Your task to perform on an android device: Show me productivity apps on the Play Store Image 0: 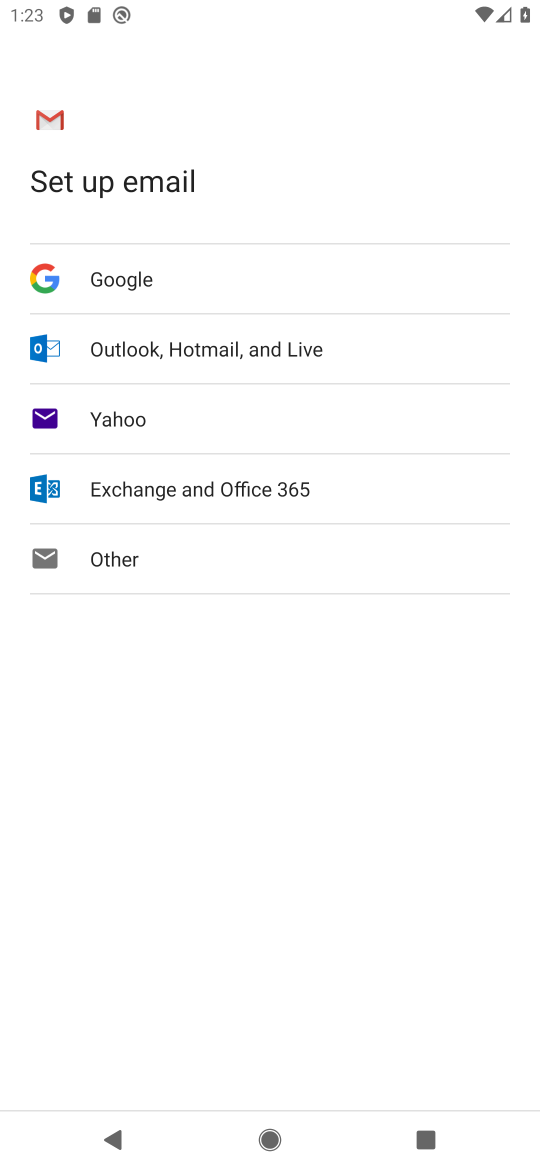
Step 0: press home button
Your task to perform on an android device: Show me productivity apps on the Play Store Image 1: 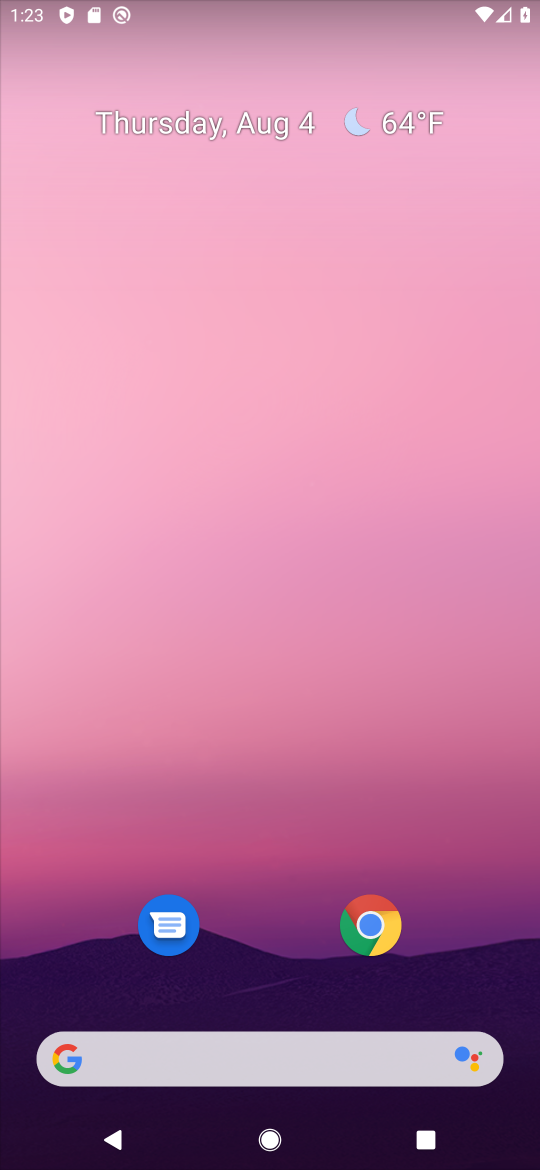
Step 1: drag from (299, 924) to (386, 290)
Your task to perform on an android device: Show me productivity apps on the Play Store Image 2: 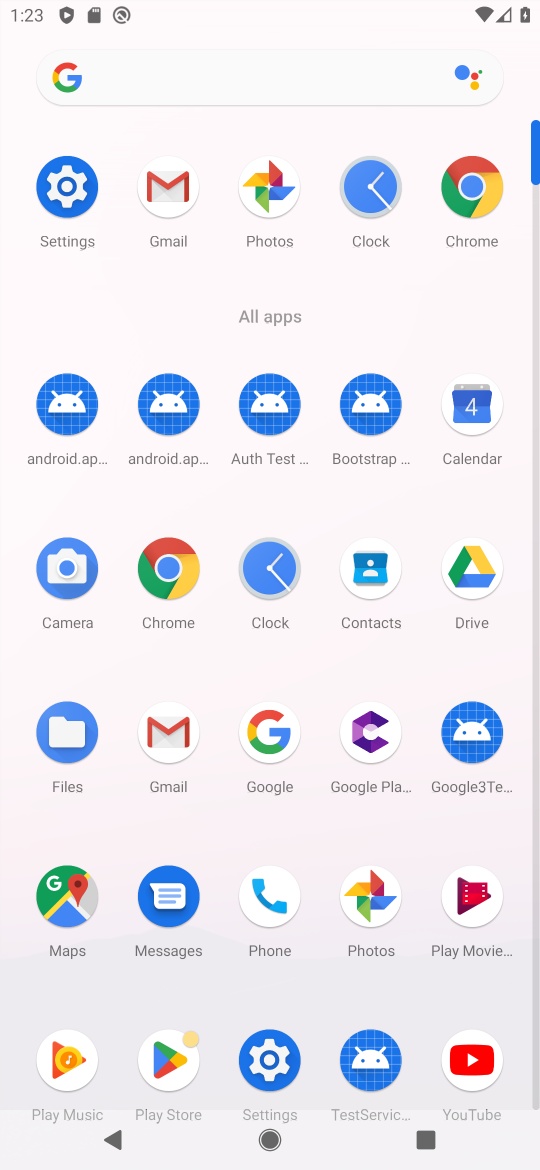
Step 2: click (176, 1066)
Your task to perform on an android device: Show me productivity apps on the Play Store Image 3: 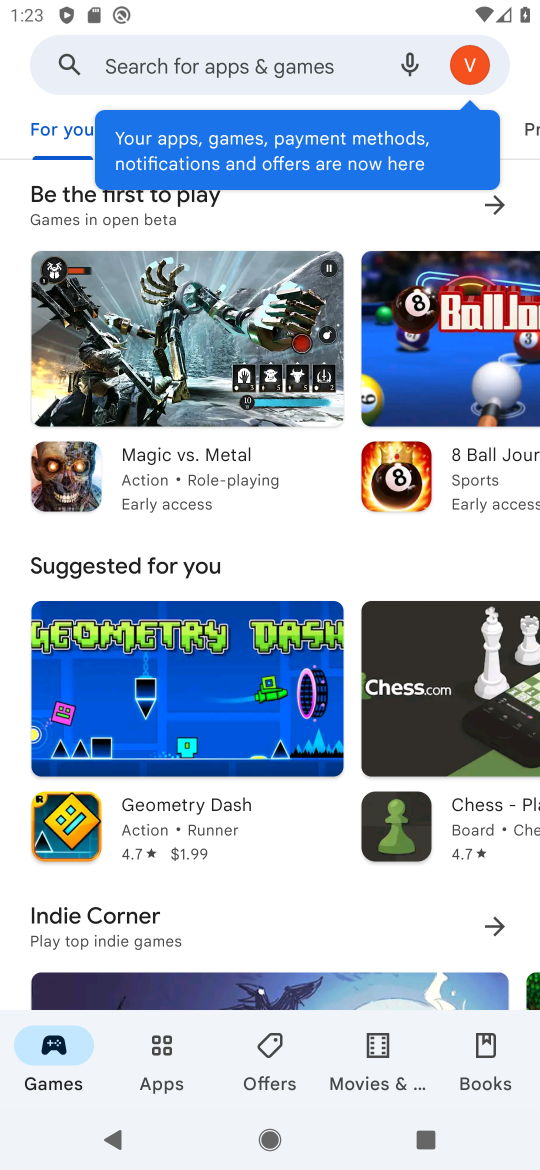
Step 3: task complete